Your task to perform on an android device: Open Google Maps and go to "Timeline" Image 0: 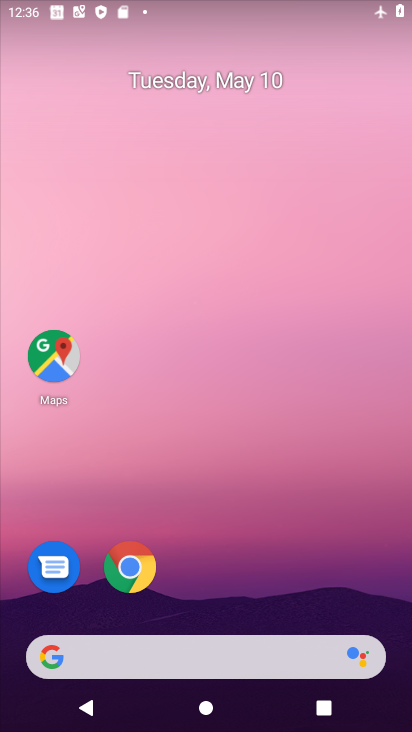
Step 0: drag from (380, 616) to (281, 57)
Your task to perform on an android device: Open Google Maps and go to "Timeline" Image 1: 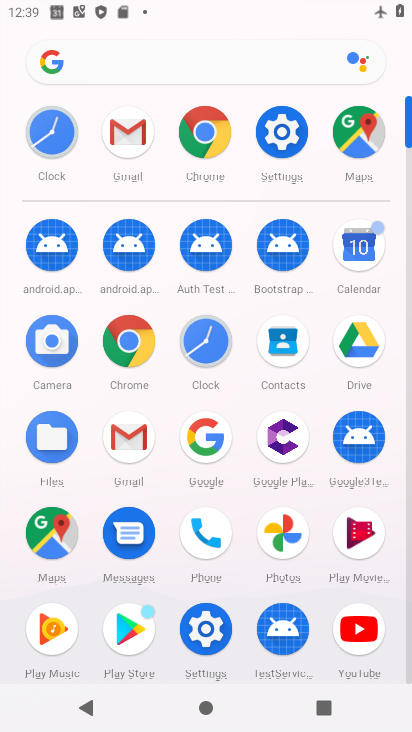
Step 1: click (356, 635)
Your task to perform on an android device: Open Google Maps and go to "Timeline" Image 2: 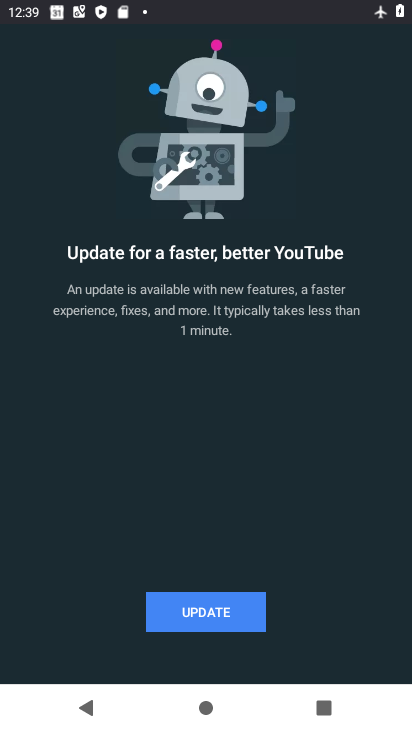
Step 2: click (180, 604)
Your task to perform on an android device: Open Google Maps and go to "Timeline" Image 3: 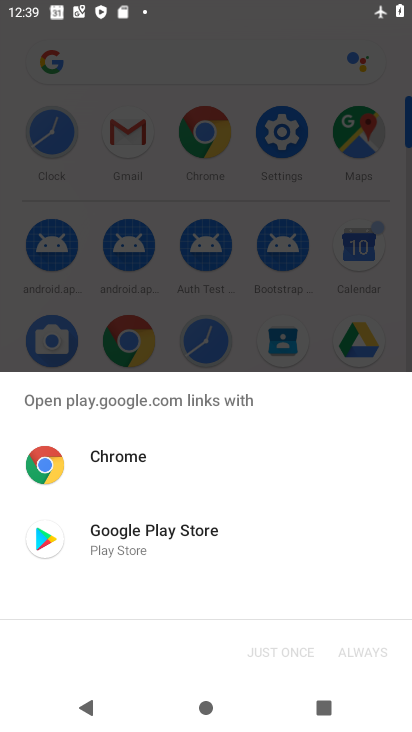
Step 3: click (114, 540)
Your task to perform on an android device: Open Google Maps and go to "Timeline" Image 4: 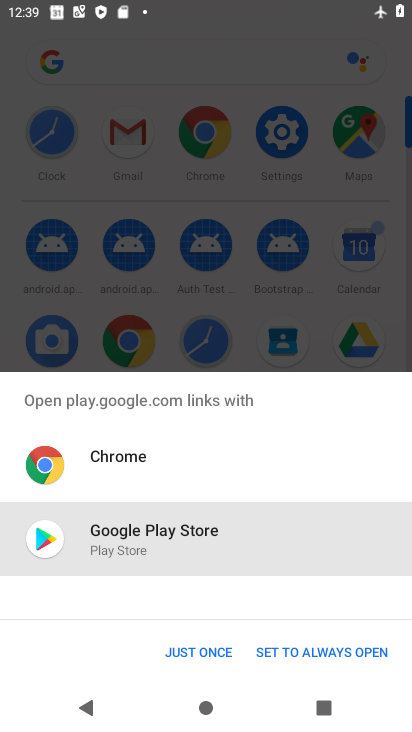
Step 4: click (210, 638)
Your task to perform on an android device: Open Google Maps and go to "Timeline" Image 5: 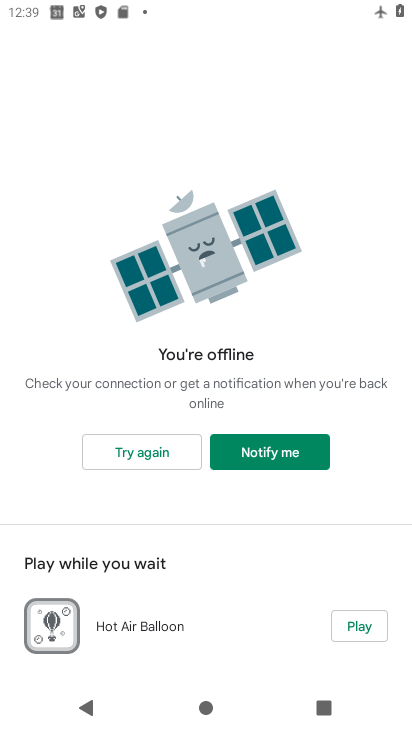
Step 5: task complete